Your task to perform on an android device: Play the last video I watched on Youtube Image 0: 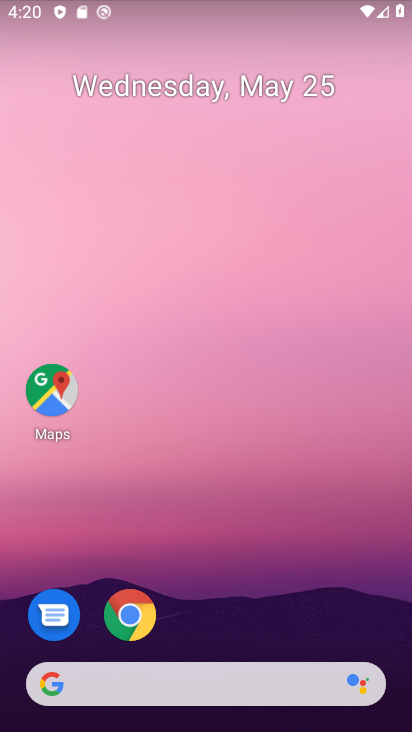
Step 0: press home button
Your task to perform on an android device: Play the last video I watched on Youtube Image 1: 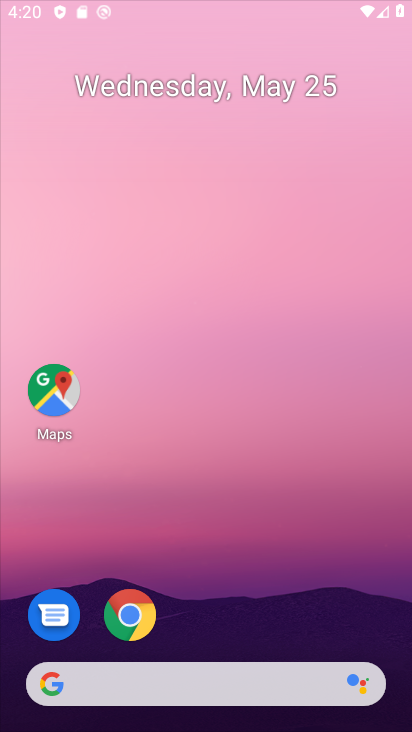
Step 1: drag from (242, 636) to (213, 117)
Your task to perform on an android device: Play the last video I watched on Youtube Image 2: 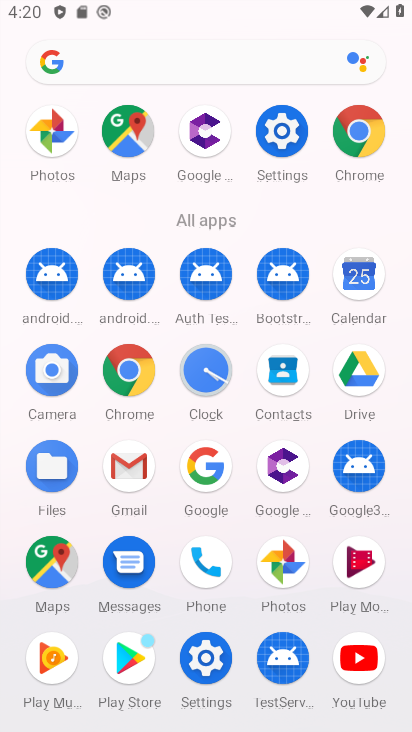
Step 2: click (377, 666)
Your task to perform on an android device: Play the last video I watched on Youtube Image 3: 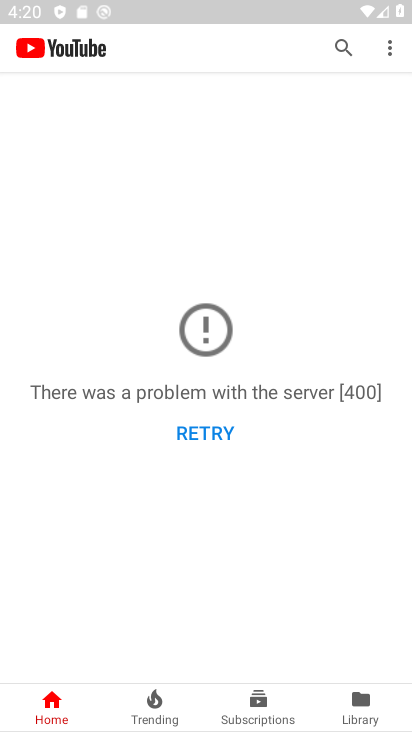
Step 3: task complete